Your task to perform on an android device: Search for pizza restaurants on Maps Image 0: 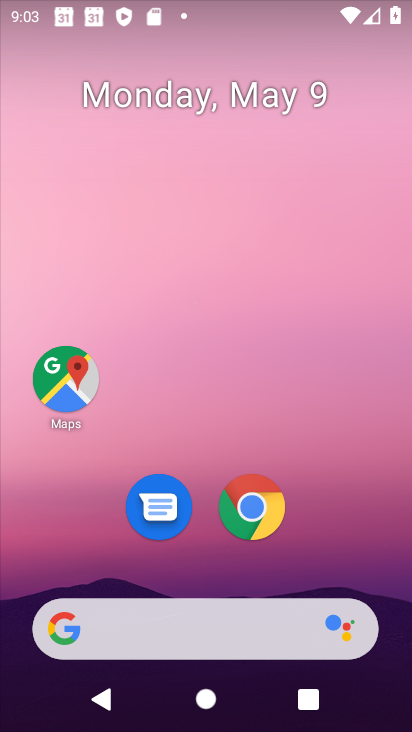
Step 0: drag from (96, 592) to (237, 70)
Your task to perform on an android device: Search for pizza restaurants on Maps Image 1: 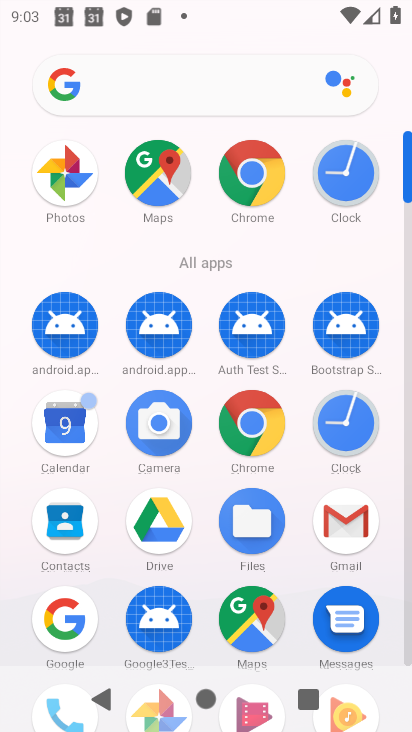
Step 1: click (252, 607)
Your task to perform on an android device: Search for pizza restaurants on Maps Image 2: 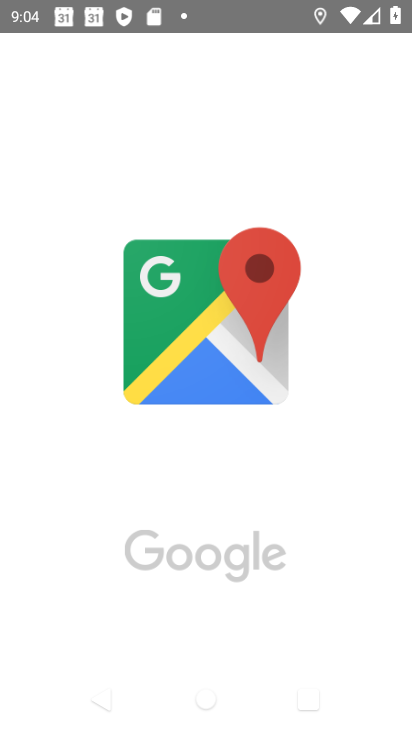
Step 2: click (251, 607)
Your task to perform on an android device: Search for pizza restaurants on Maps Image 3: 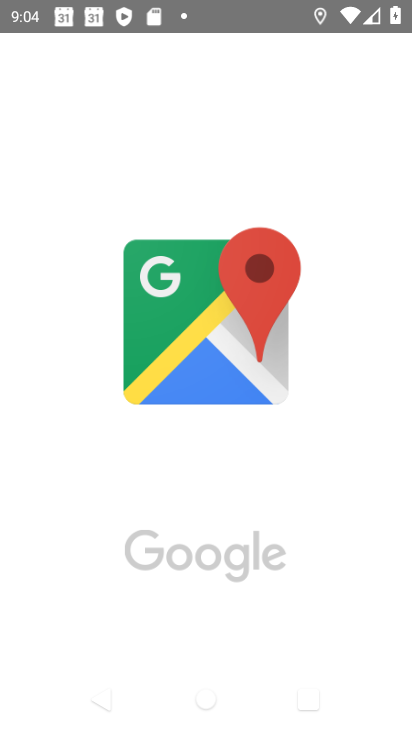
Step 3: click (262, 501)
Your task to perform on an android device: Search for pizza restaurants on Maps Image 4: 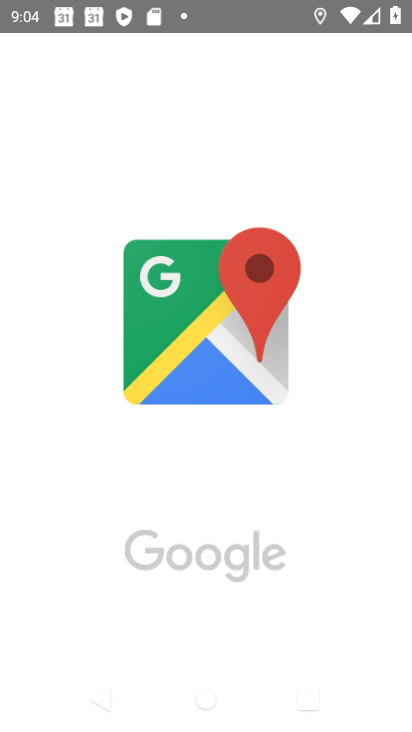
Step 4: task complete